Your task to perform on an android device: Go to internet settings Image 0: 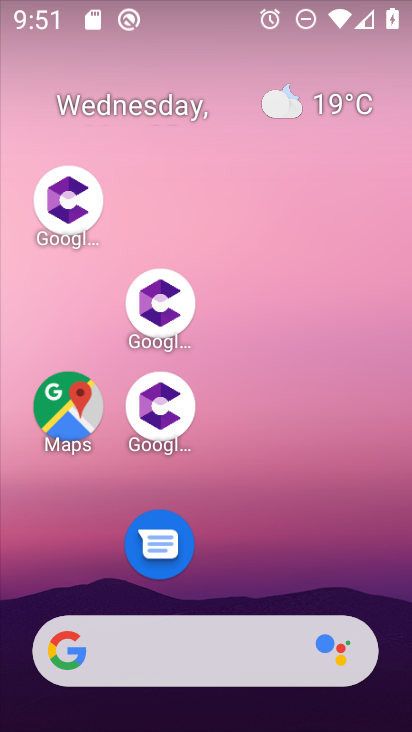
Step 0: drag from (258, 529) to (226, 31)
Your task to perform on an android device: Go to internet settings Image 1: 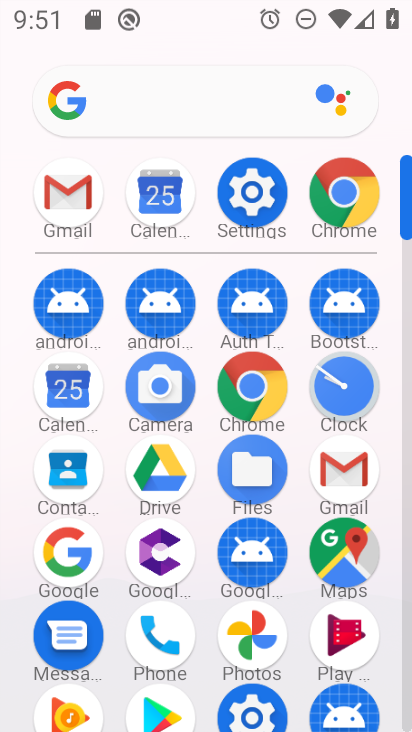
Step 1: click (252, 189)
Your task to perform on an android device: Go to internet settings Image 2: 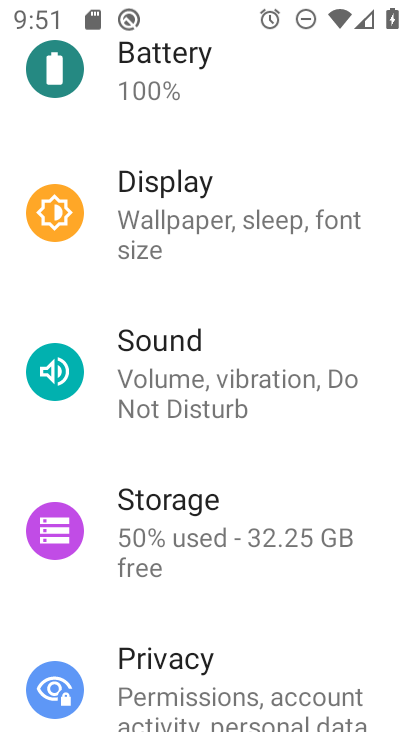
Step 2: drag from (224, 150) to (194, 731)
Your task to perform on an android device: Go to internet settings Image 3: 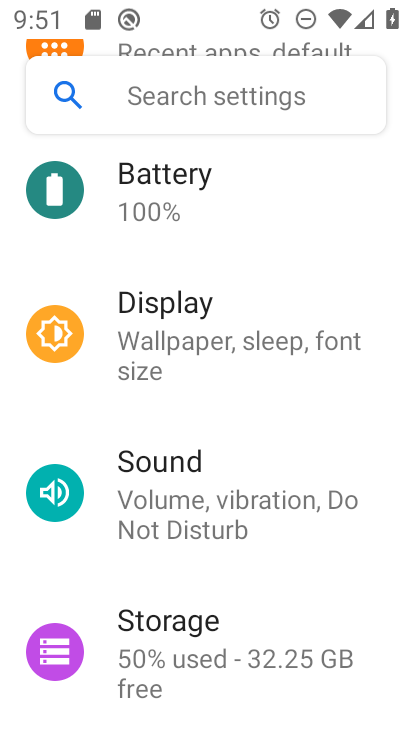
Step 3: drag from (237, 274) to (182, 717)
Your task to perform on an android device: Go to internet settings Image 4: 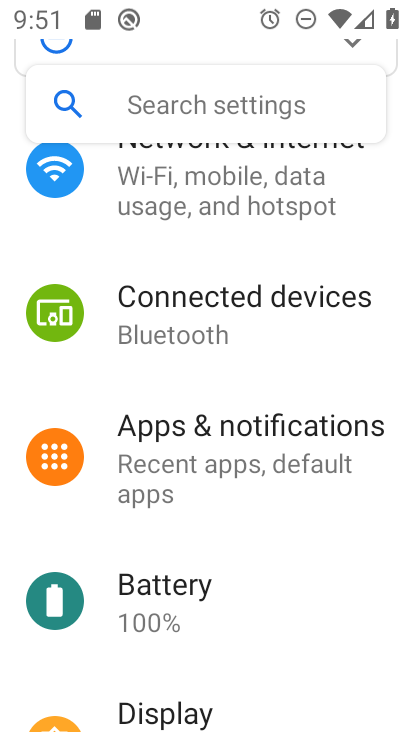
Step 4: click (213, 169)
Your task to perform on an android device: Go to internet settings Image 5: 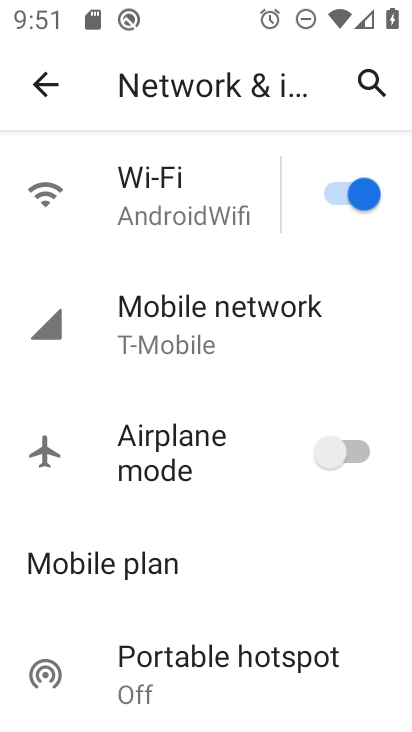
Step 5: click (247, 315)
Your task to perform on an android device: Go to internet settings Image 6: 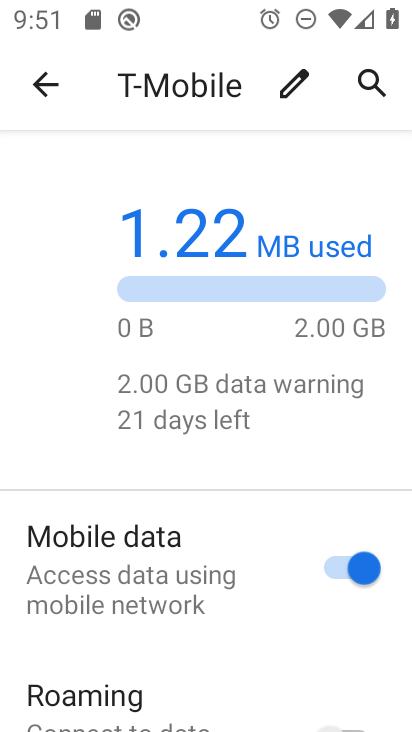
Step 6: task complete